Your task to perform on an android device: turn on airplane mode Image 0: 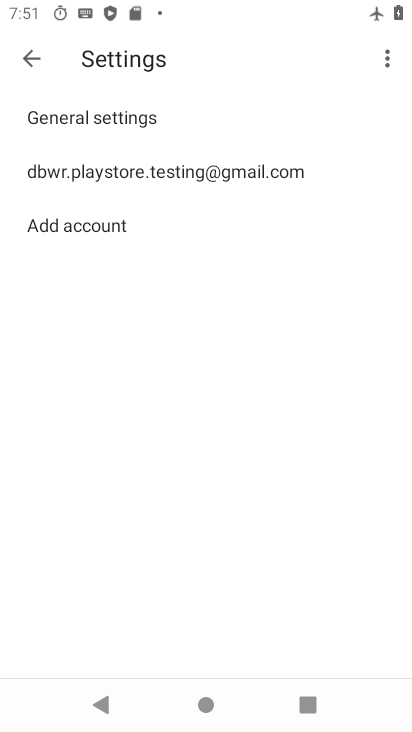
Step 0: press home button
Your task to perform on an android device: turn on airplane mode Image 1: 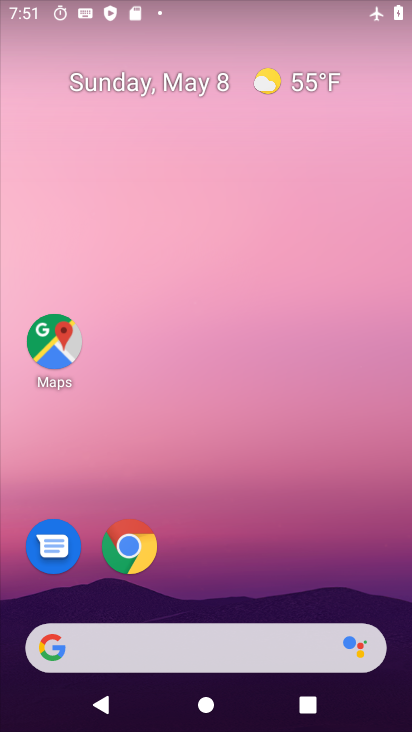
Step 1: drag from (323, 437) to (326, 84)
Your task to perform on an android device: turn on airplane mode Image 2: 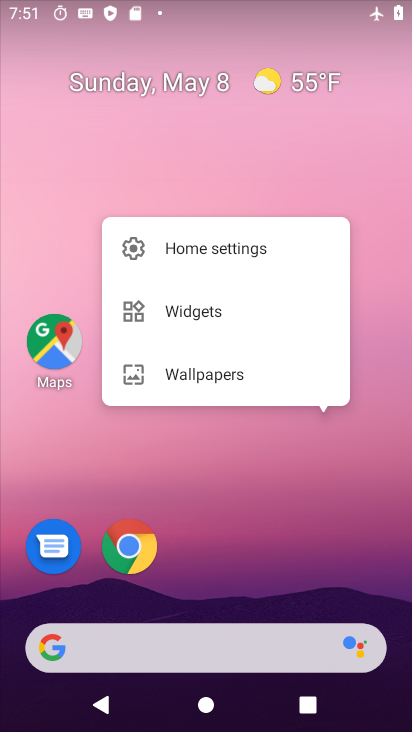
Step 2: click (294, 531)
Your task to perform on an android device: turn on airplane mode Image 3: 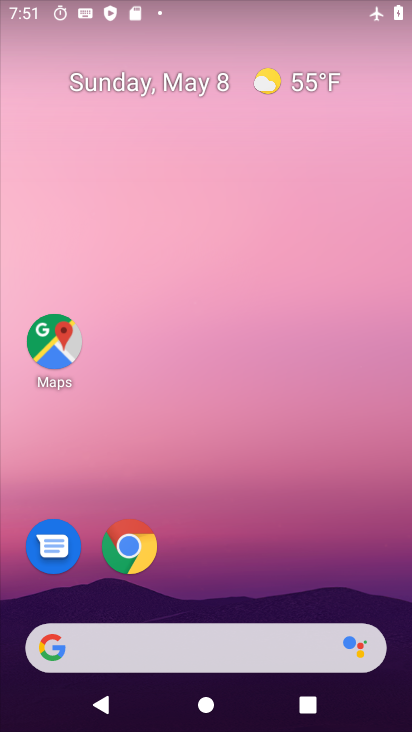
Step 3: drag from (294, 531) to (335, 68)
Your task to perform on an android device: turn on airplane mode Image 4: 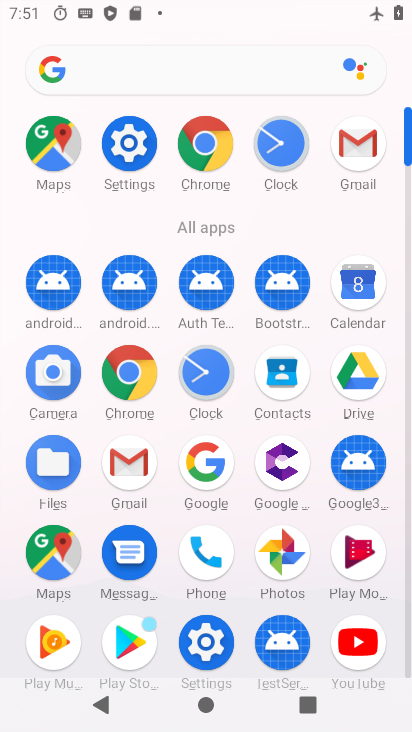
Step 4: click (135, 137)
Your task to perform on an android device: turn on airplane mode Image 5: 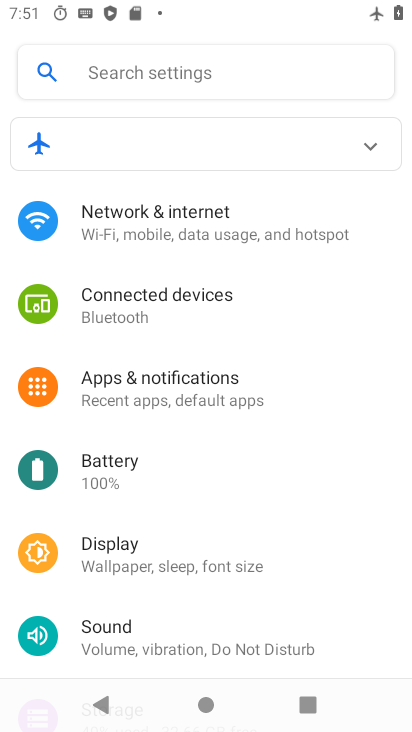
Step 5: click (151, 216)
Your task to perform on an android device: turn on airplane mode Image 6: 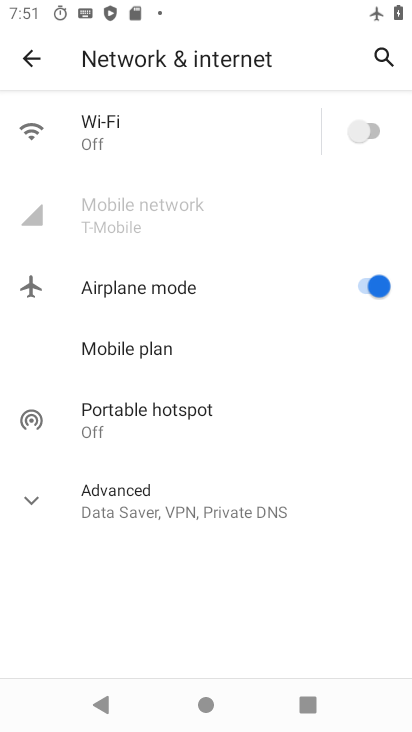
Step 6: task complete